Your task to perform on an android device: Open network settings Image 0: 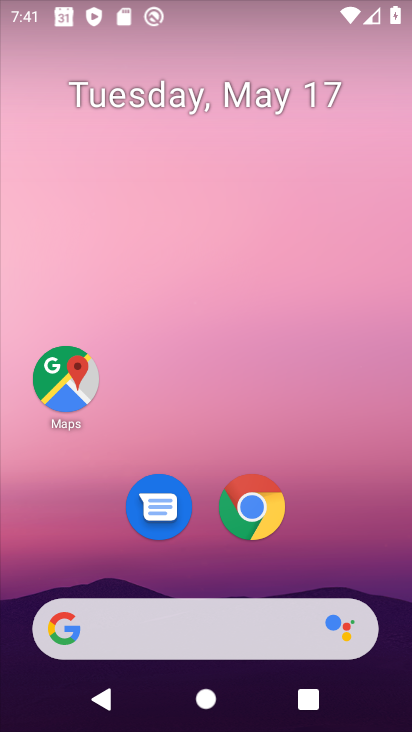
Step 0: drag from (364, 570) to (249, 32)
Your task to perform on an android device: Open network settings Image 1: 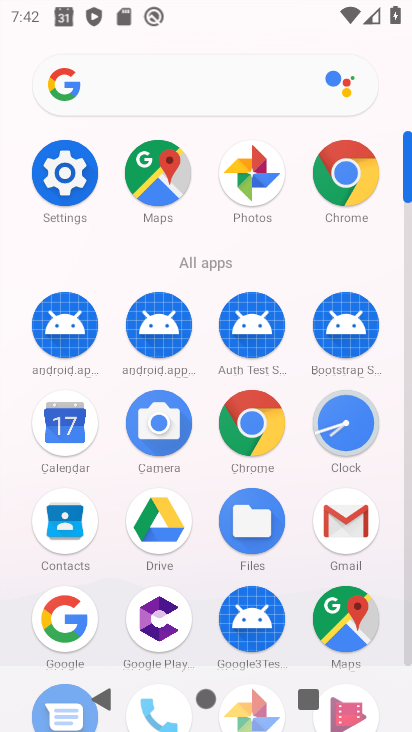
Step 1: click (65, 175)
Your task to perform on an android device: Open network settings Image 2: 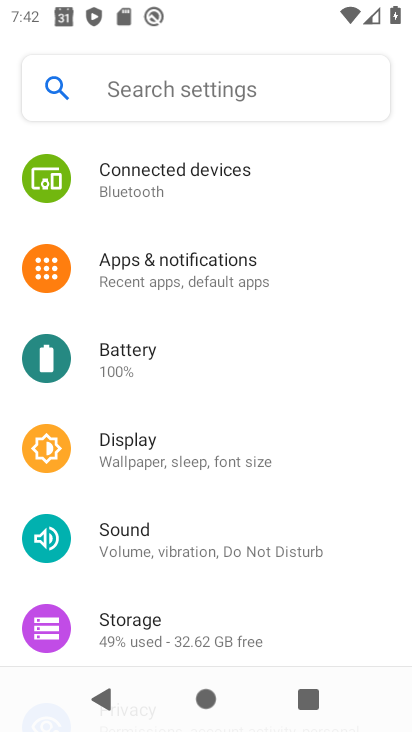
Step 2: drag from (244, 206) to (241, 543)
Your task to perform on an android device: Open network settings Image 3: 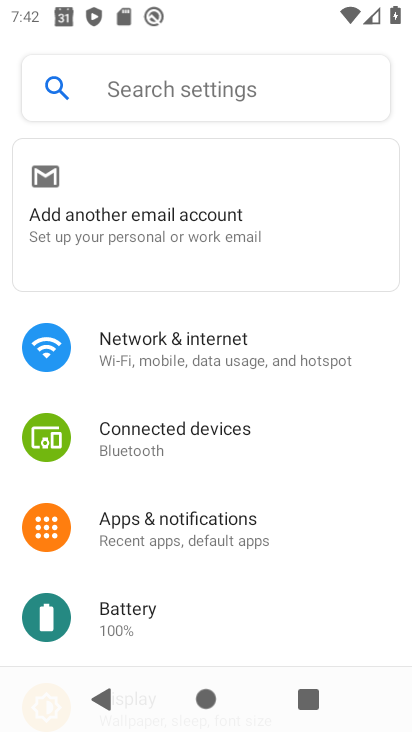
Step 3: click (152, 348)
Your task to perform on an android device: Open network settings Image 4: 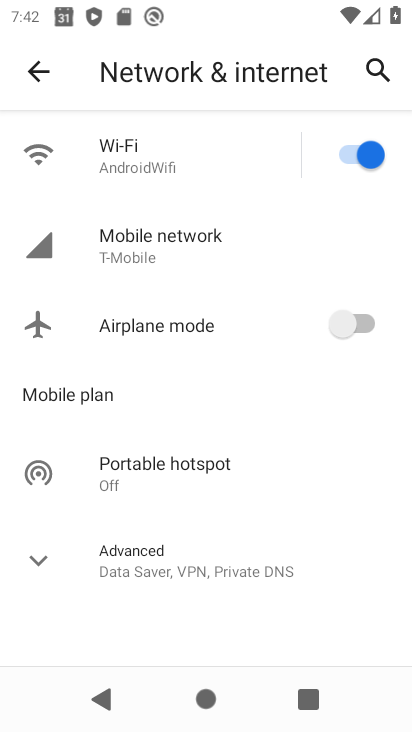
Step 4: click (152, 249)
Your task to perform on an android device: Open network settings Image 5: 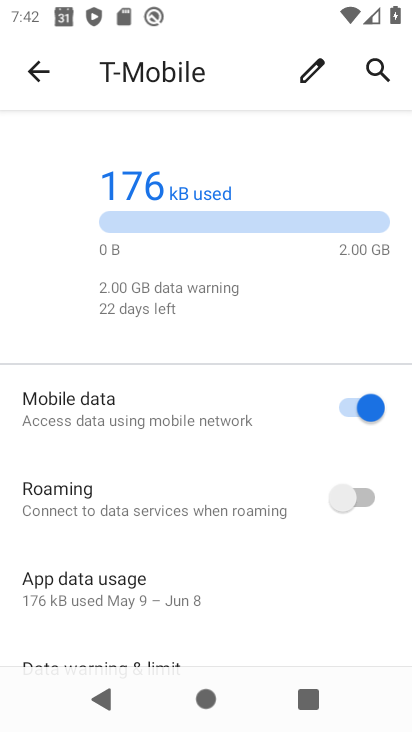
Step 5: drag from (221, 539) to (256, 27)
Your task to perform on an android device: Open network settings Image 6: 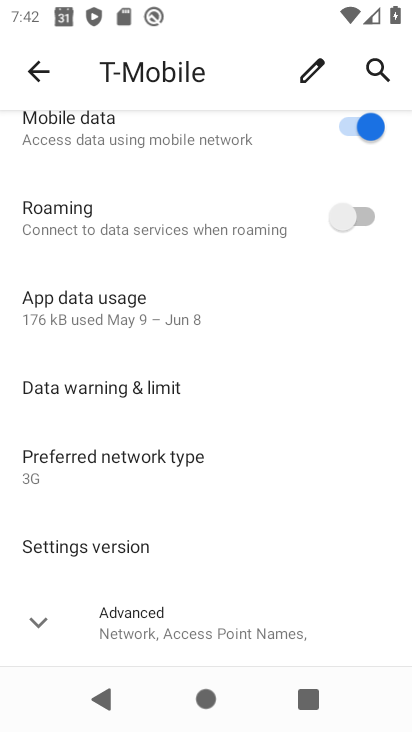
Step 6: click (37, 630)
Your task to perform on an android device: Open network settings Image 7: 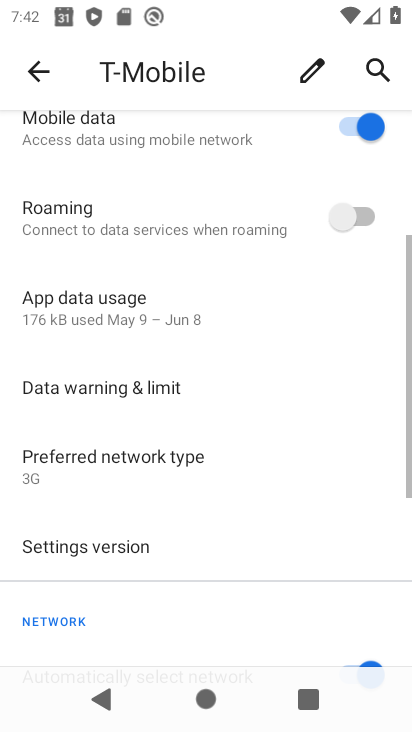
Step 7: task complete